Your task to perform on an android device: open the mobile data screen to see how much data has been used Image 0: 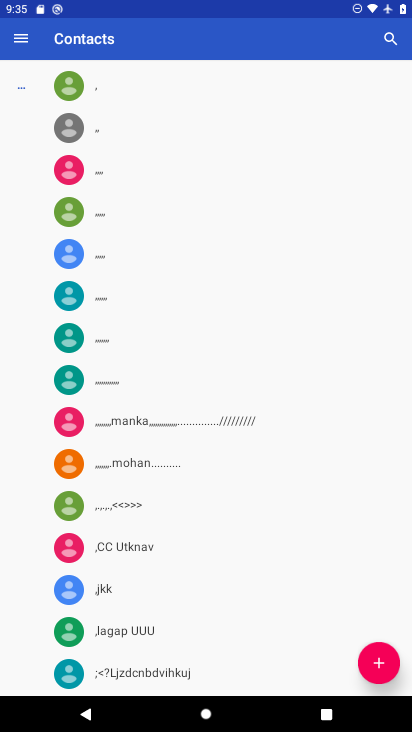
Step 0: press home button
Your task to perform on an android device: open the mobile data screen to see how much data has been used Image 1: 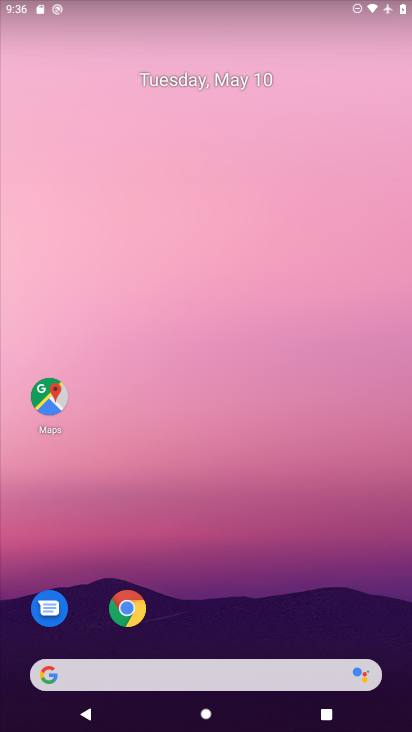
Step 1: drag from (253, 393) to (260, 328)
Your task to perform on an android device: open the mobile data screen to see how much data has been used Image 2: 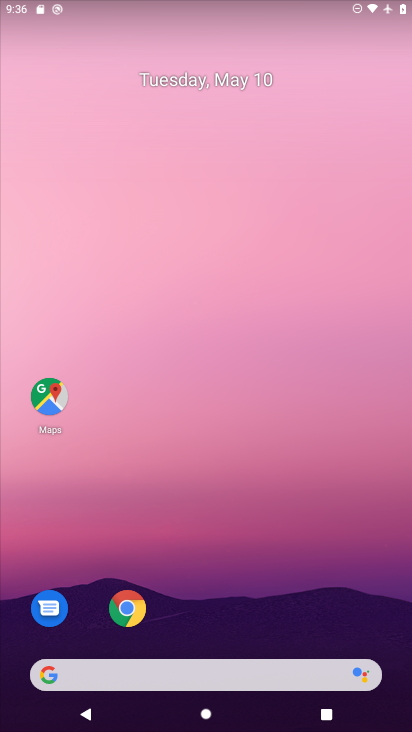
Step 2: drag from (246, 602) to (266, 43)
Your task to perform on an android device: open the mobile data screen to see how much data has been used Image 3: 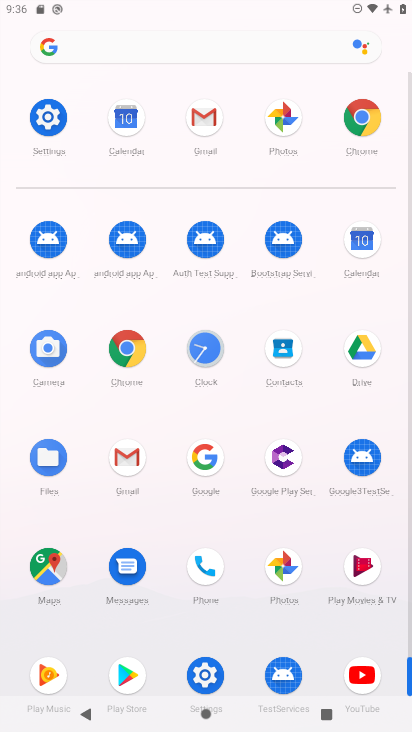
Step 3: click (49, 112)
Your task to perform on an android device: open the mobile data screen to see how much data has been used Image 4: 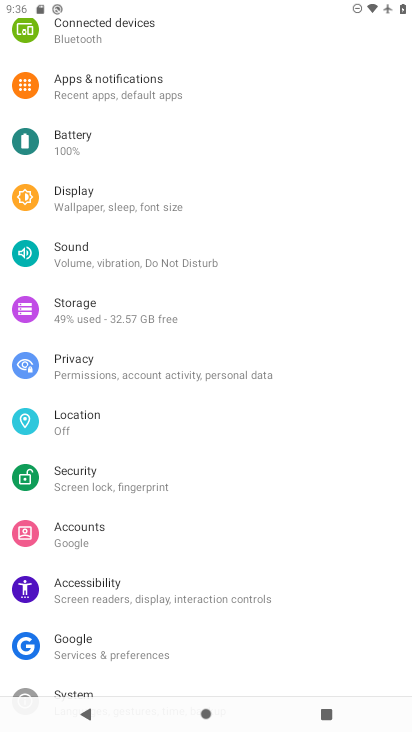
Step 4: drag from (140, 93) to (177, 499)
Your task to perform on an android device: open the mobile data screen to see how much data has been used Image 5: 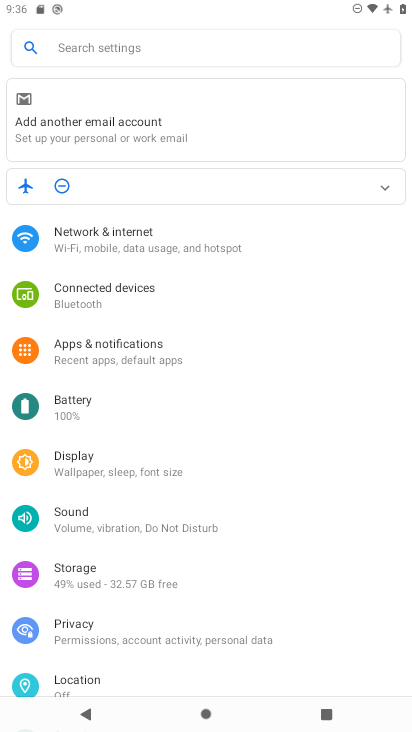
Step 5: click (101, 237)
Your task to perform on an android device: open the mobile data screen to see how much data has been used Image 6: 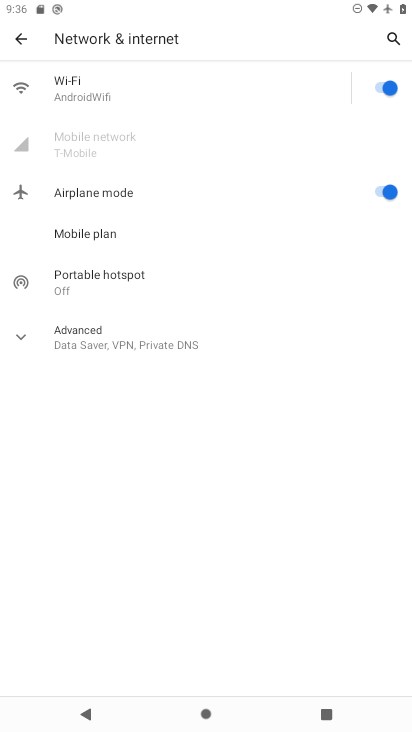
Step 6: click (126, 130)
Your task to perform on an android device: open the mobile data screen to see how much data has been used Image 7: 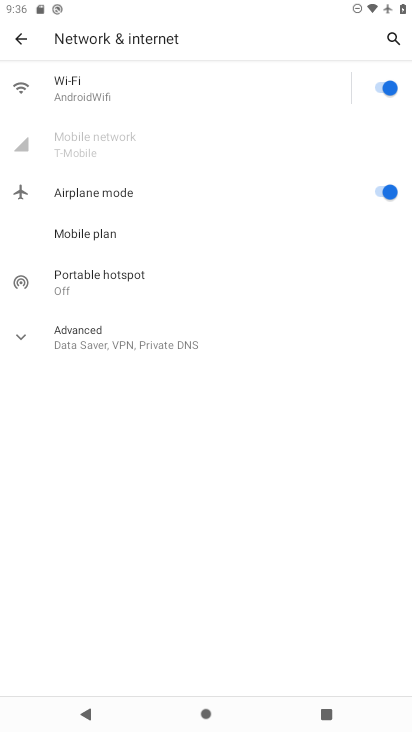
Step 7: click (127, 130)
Your task to perform on an android device: open the mobile data screen to see how much data has been used Image 8: 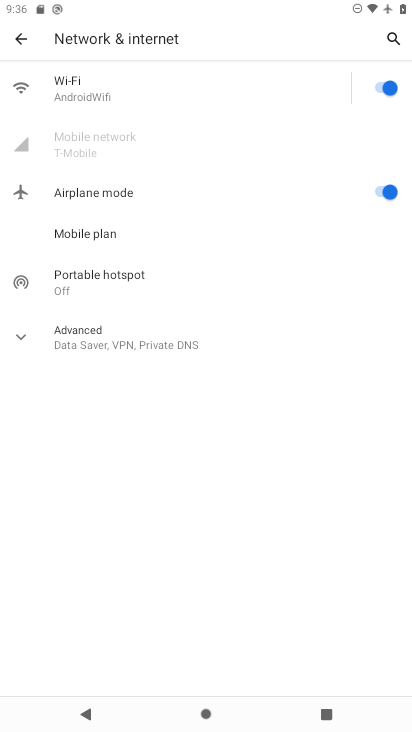
Step 8: click (128, 131)
Your task to perform on an android device: open the mobile data screen to see how much data has been used Image 9: 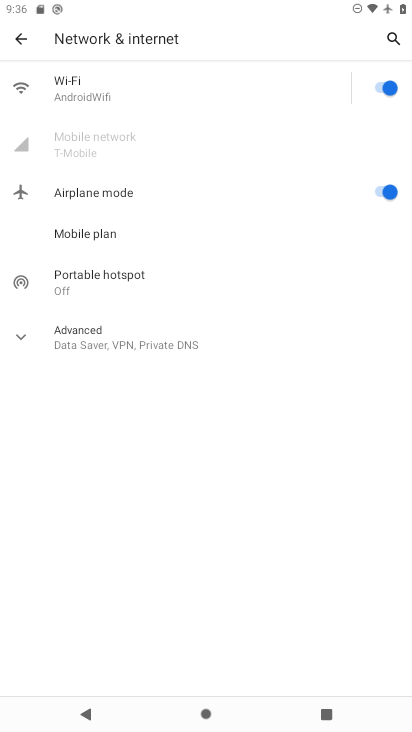
Step 9: click (128, 338)
Your task to perform on an android device: open the mobile data screen to see how much data has been used Image 10: 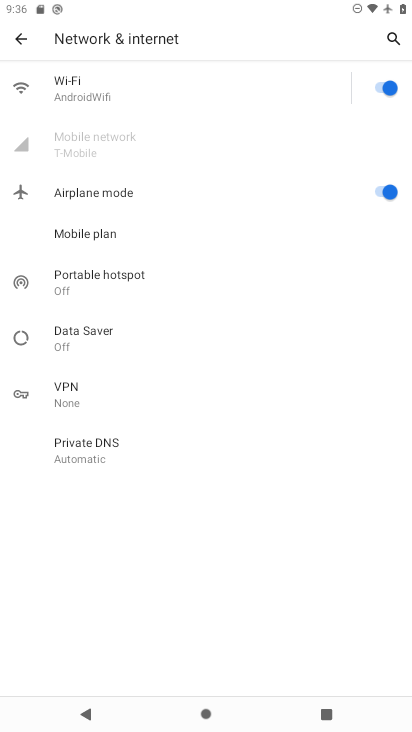
Step 10: click (120, 127)
Your task to perform on an android device: open the mobile data screen to see how much data has been used Image 11: 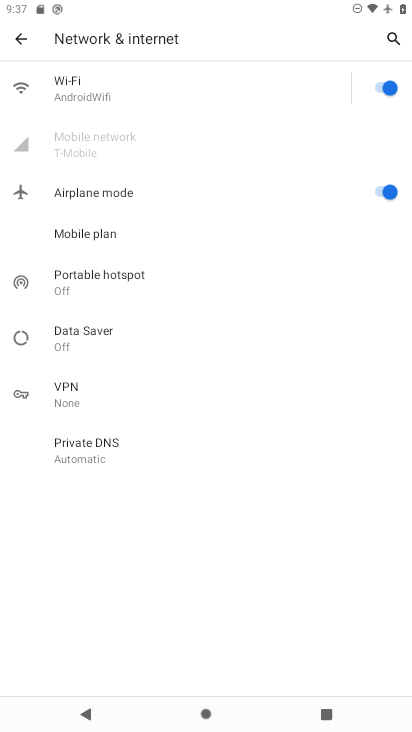
Step 11: task complete